Your task to perform on an android device: turn smart compose on in the gmail app Image 0: 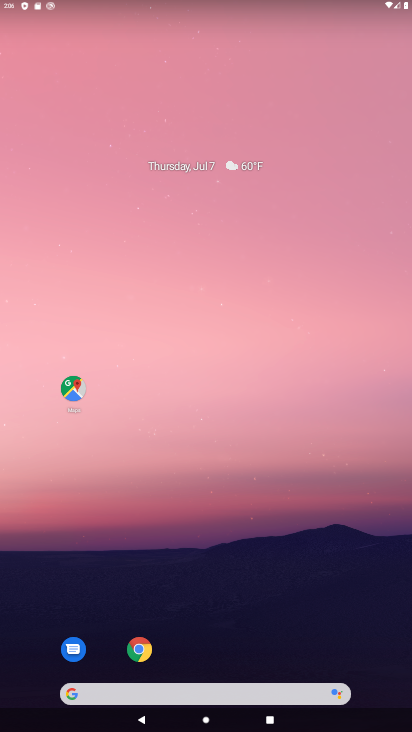
Step 0: drag from (227, 668) to (361, 41)
Your task to perform on an android device: turn smart compose on in the gmail app Image 1: 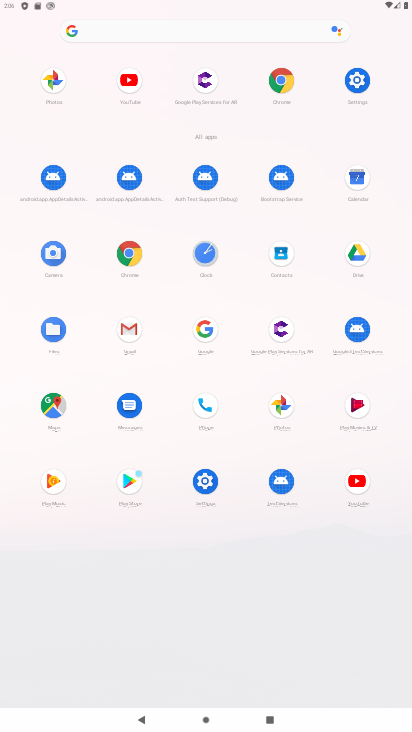
Step 1: click (121, 341)
Your task to perform on an android device: turn smart compose on in the gmail app Image 2: 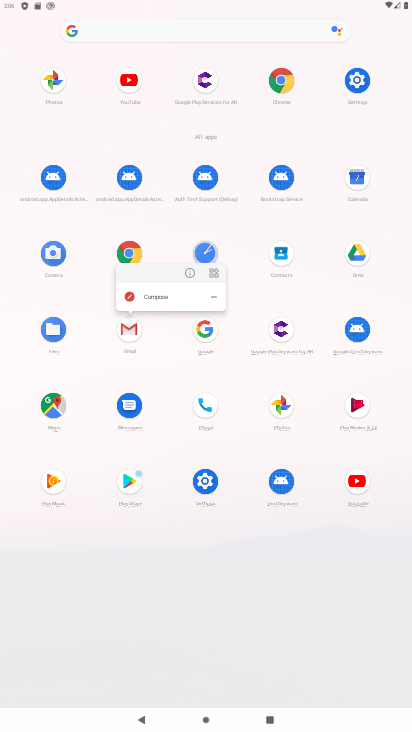
Step 2: click (132, 329)
Your task to perform on an android device: turn smart compose on in the gmail app Image 3: 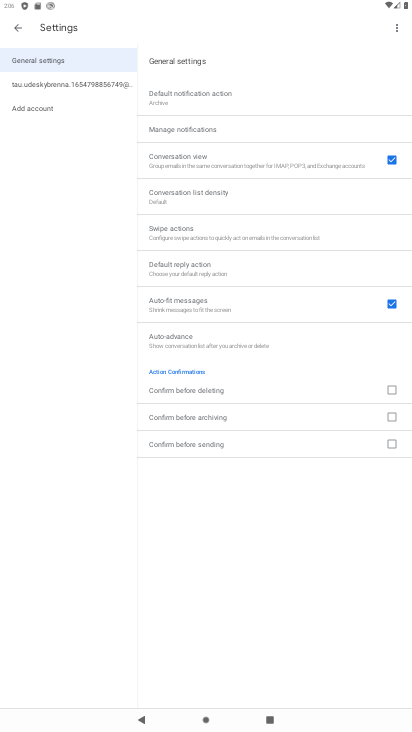
Step 3: click (74, 88)
Your task to perform on an android device: turn smart compose on in the gmail app Image 4: 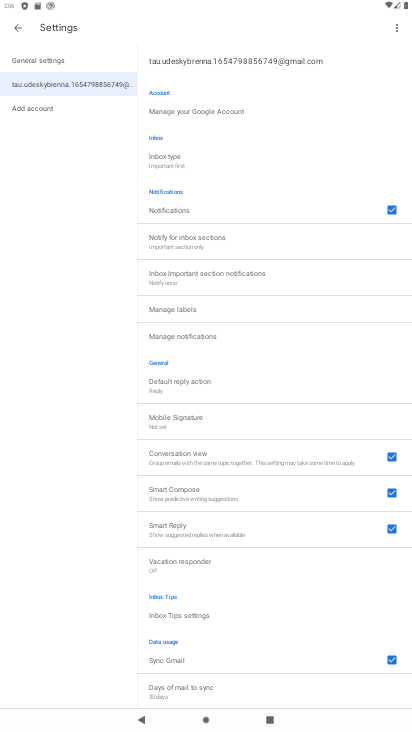
Step 4: task complete